Your task to perform on an android device: Go to Yahoo.com Image 0: 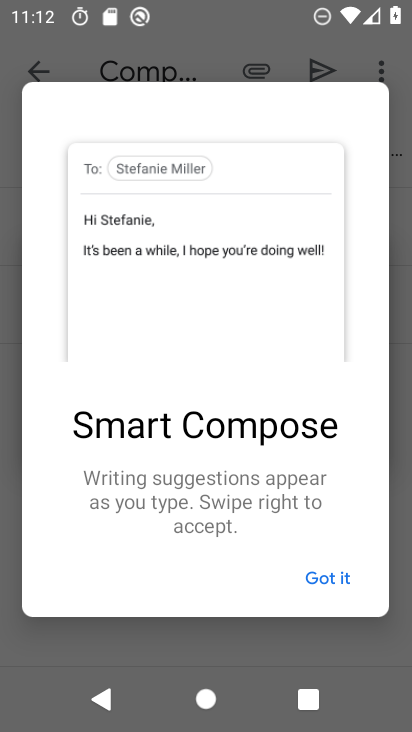
Step 0: press home button
Your task to perform on an android device: Go to Yahoo.com Image 1: 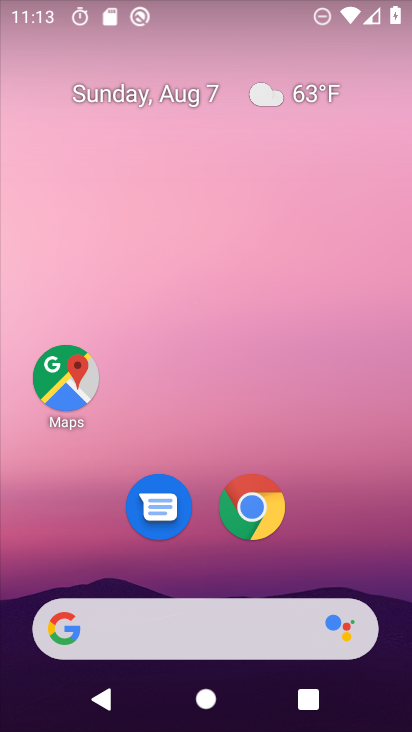
Step 1: click (261, 505)
Your task to perform on an android device: Go to Yahoo.com Image 2: 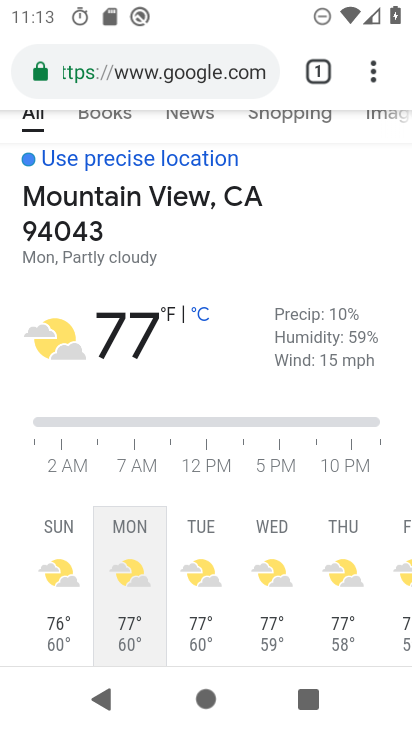
Step 2: click (235, 72)
Your task to perform on an android device: Go to Yahoo.com Image 3: 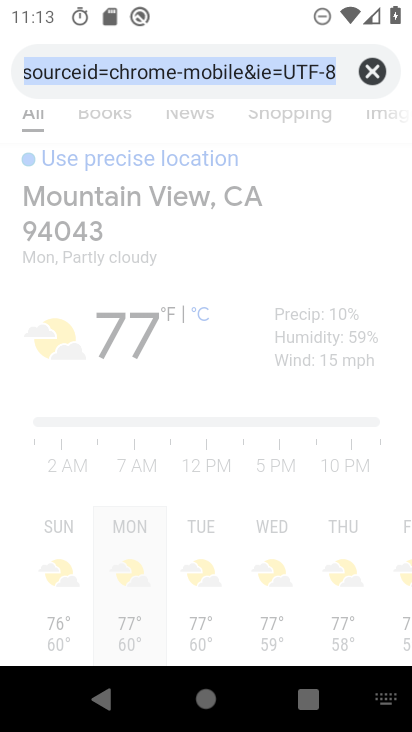
Step 3: type "yahoo.com"
Your task to perform on an android device: Go to Yahoo.com Image 4: 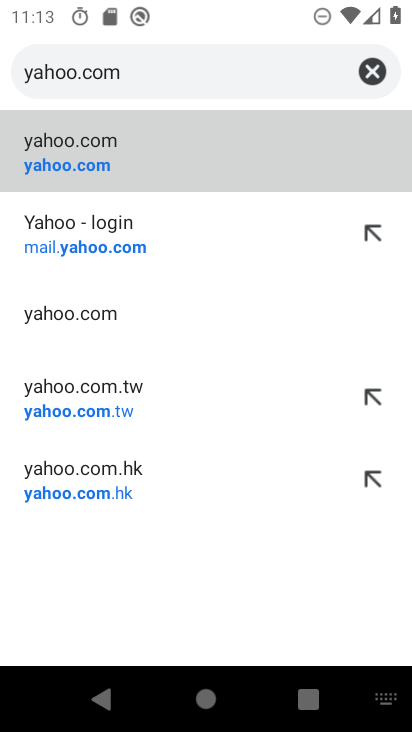
Step 4: click (38, 152)
Your task to perform on an android device: Go to Yahoo.com Image 5: 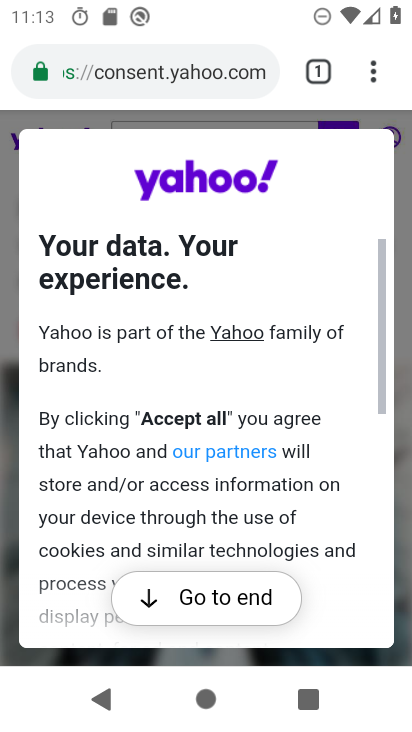
Step 5: task complete